Your task to perform on an android device: Show me the alarms in the clock app Image 0: 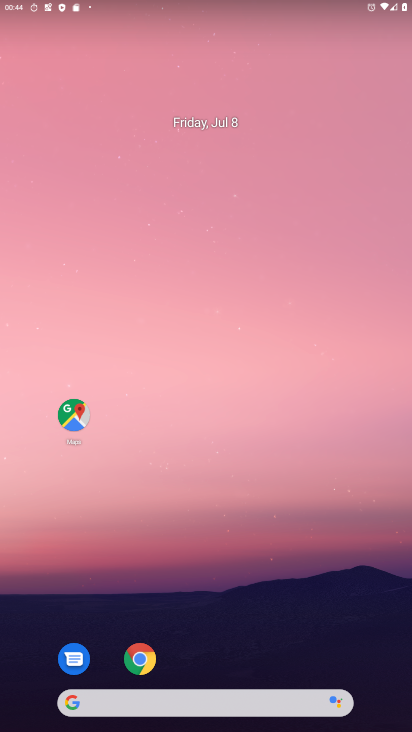
Step 0: drag from (200, 680) to (209, 73)
Your task to perform on an android device: Show me the alarms in the clock app Image 1: 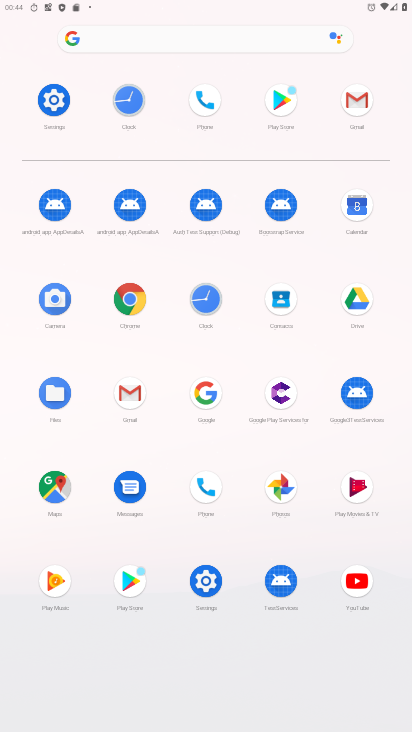
Step 1: click (202, 314)
Your task to perform on an android device: Show me the alarms in the clock app Image 2: 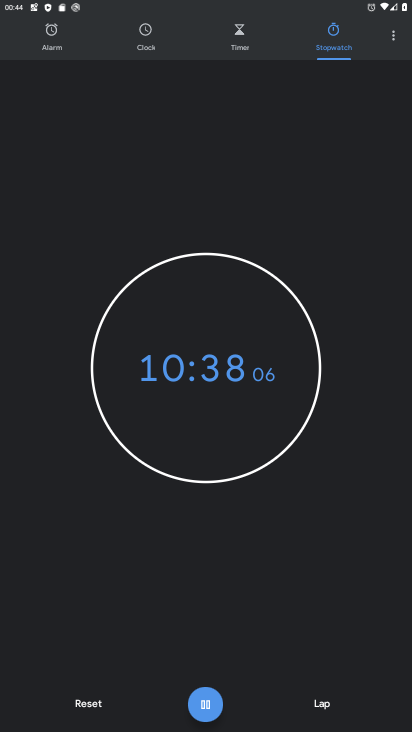
Step 2: click (40, 40)
Your task to perform on an android device: Show me the alarms in the clock app Image 3: 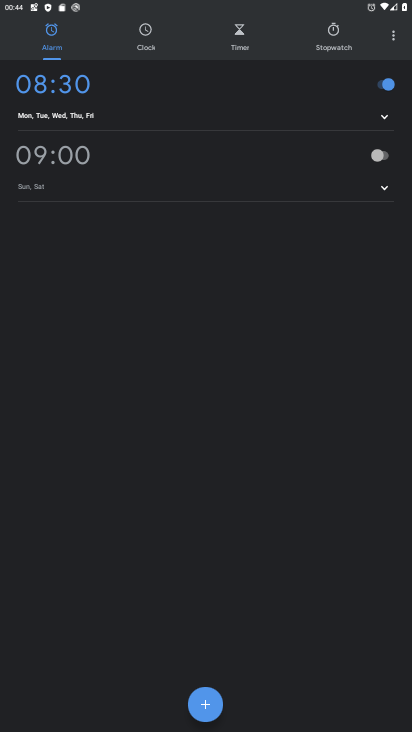
Step 3: task complete